Your task to perform on an android device: show emergency info Image 0: 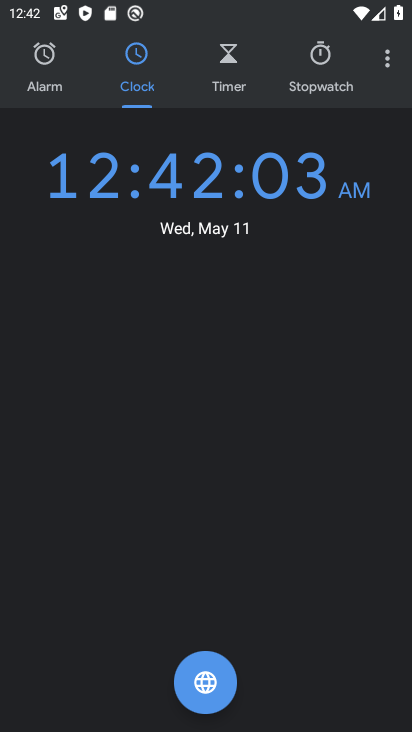
Step 0: press home button
Your task to perform on an android device: show emergency info Image 1: 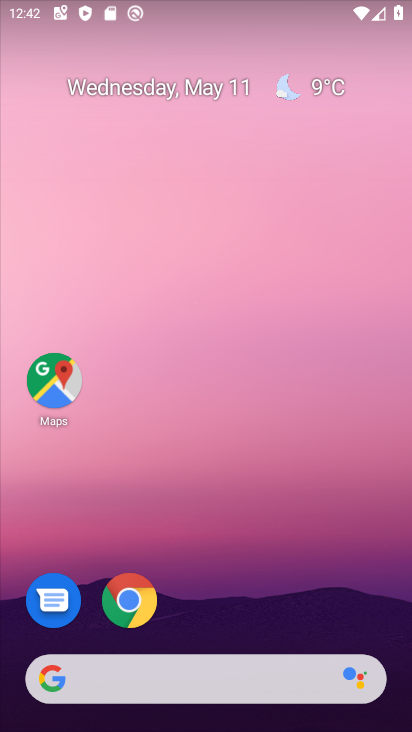
Step 1: drag from (231, 717) to (303, 0)
Your task to perform on an android device: show emergency info Image 2: 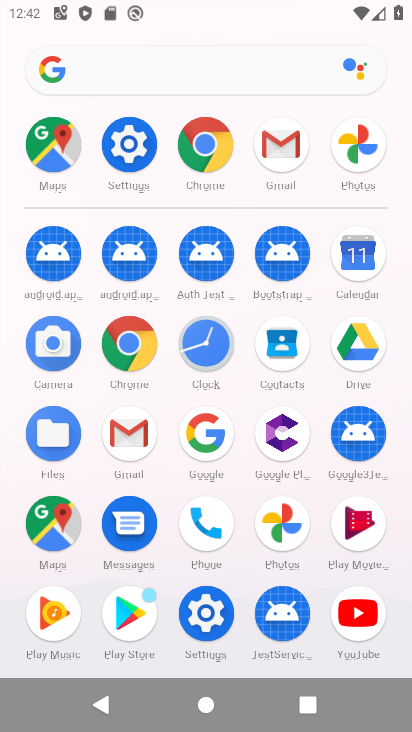
Step 2: click (124, 133)
Your task to perform on an android device: show emergency info Image 3: 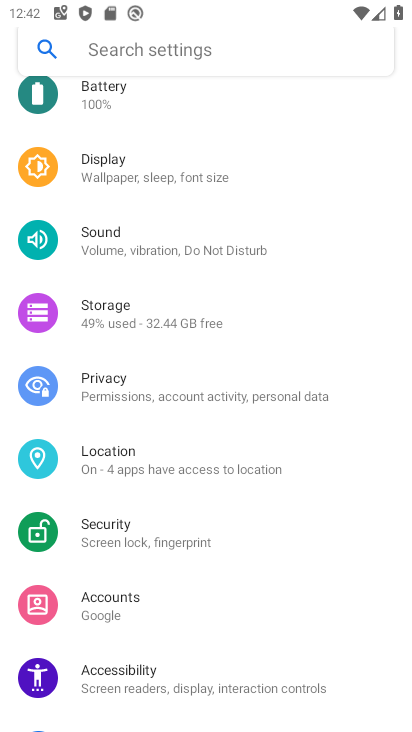
Step 3: drag from (269, 696) to (257, 30)
Your task to perform on an android device: show emergency info Image 4: 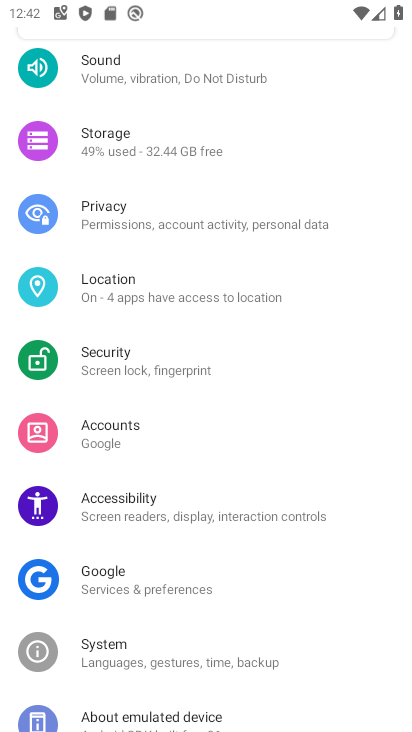
Step 4: click (176, 720)
Your task to perform on an android device: show emergency info Image 5: 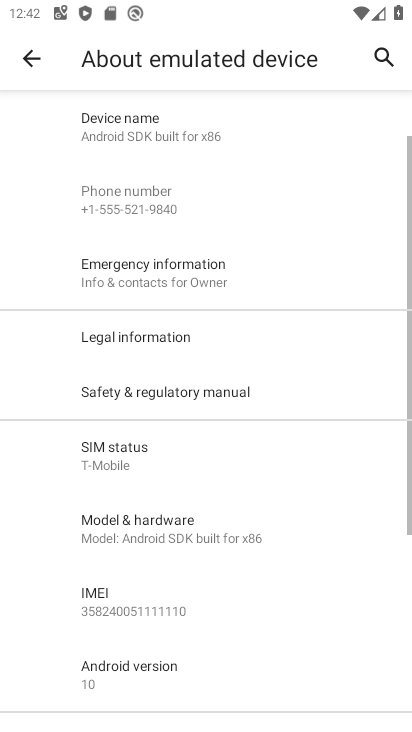
Step 5: click (192, 284)
Your task to perform on an android device: show emergency info Image 6: 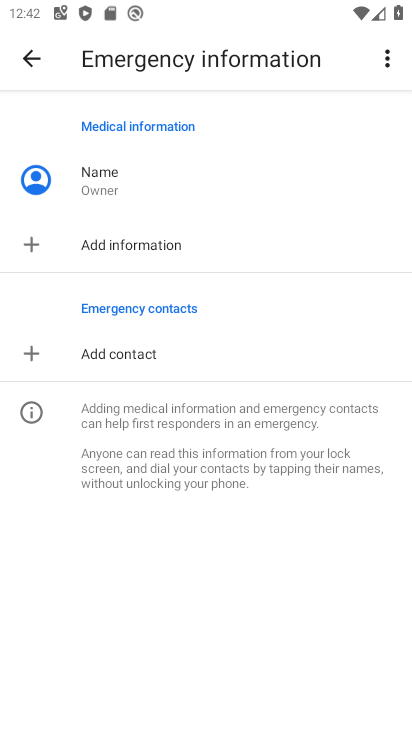
Step 6: task complete